Your task to perform on an android device: Open Chrome and go to the settings page Image 0: 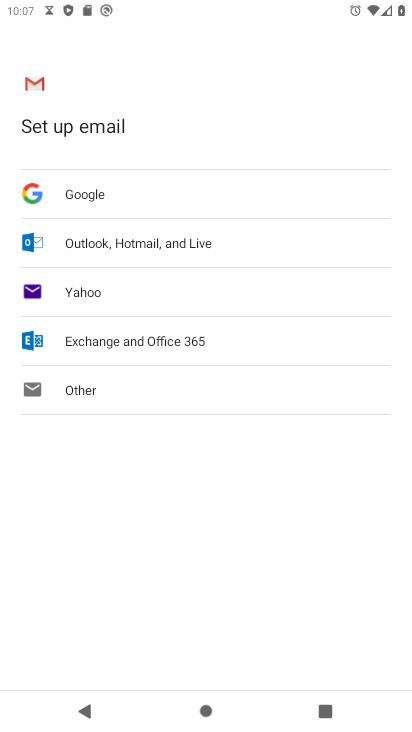
Step 0: press back button
Your task to perform on an android device: Open Chrome and go to the settings page Image 1: 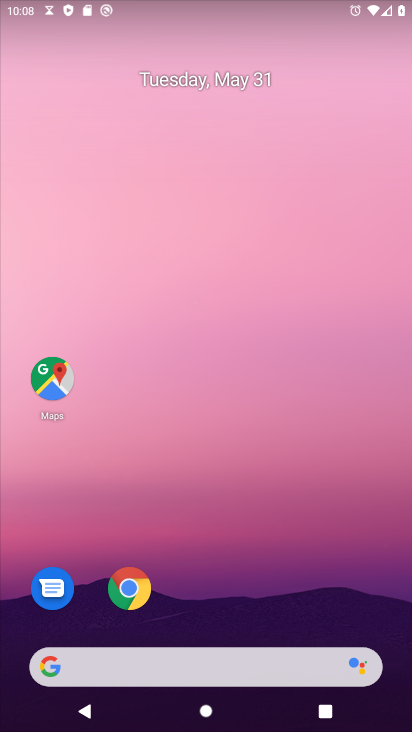
Step 1: click (129, 587)
Your task to perform on an android device: Open Chrome and go to the settings page Image 2: 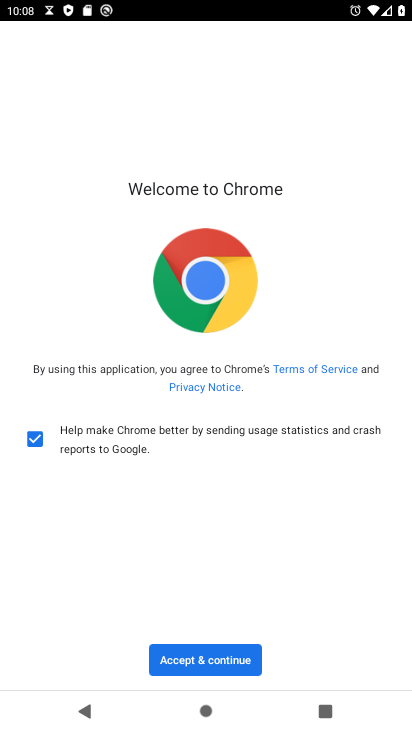
Step 2: click (203, 657)
Your task to perform on an android device: Open Chrome and go to the settings page Image 3: 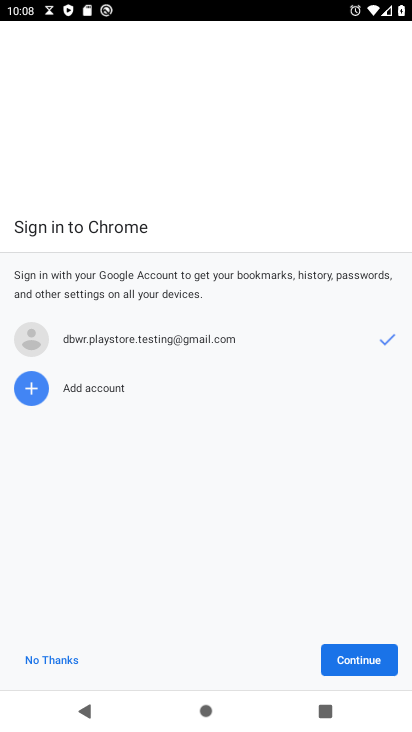
Step 3: click (366, 658)
Your task to perform on an android device: Open Chrome and go to the settings page Image 4: 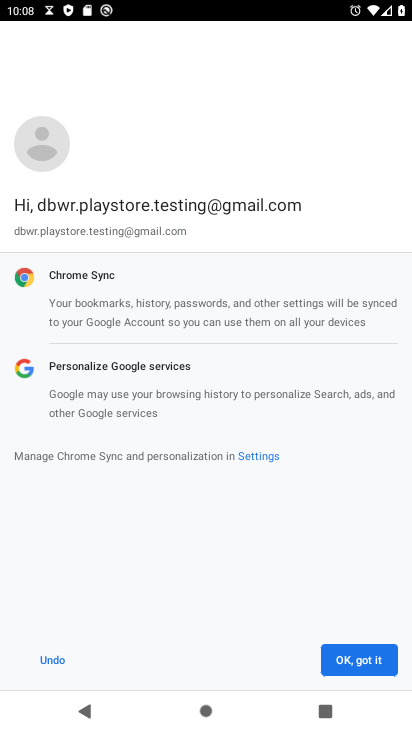
Step 4: click (366, 658)
Your task to perform on an android device: Open Chrome and go to the settings page Image 5: 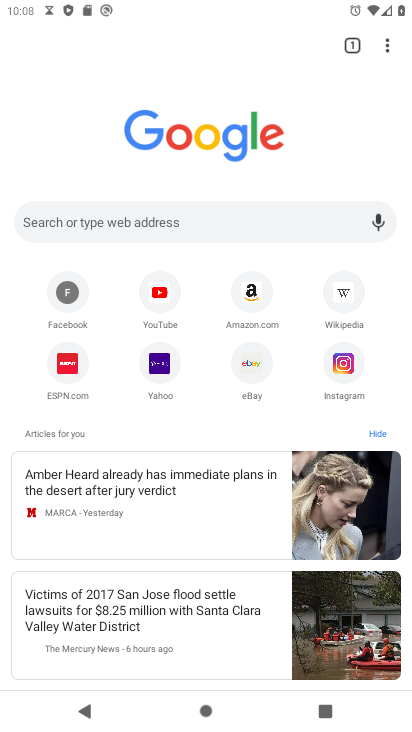
Step 5: click (386, 46)
Your task to perform on an android device: Open Chrome and go to the settings page Image 6: 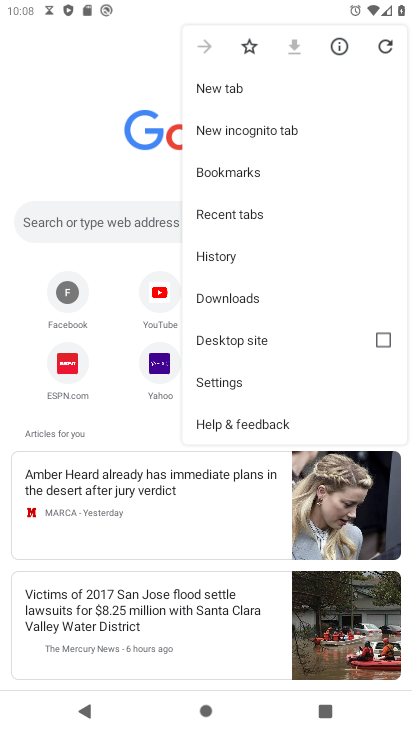
Step 6: click (232, 376)
Your task to perform on an android device: Open Chrome and go to the settings page Image 7: 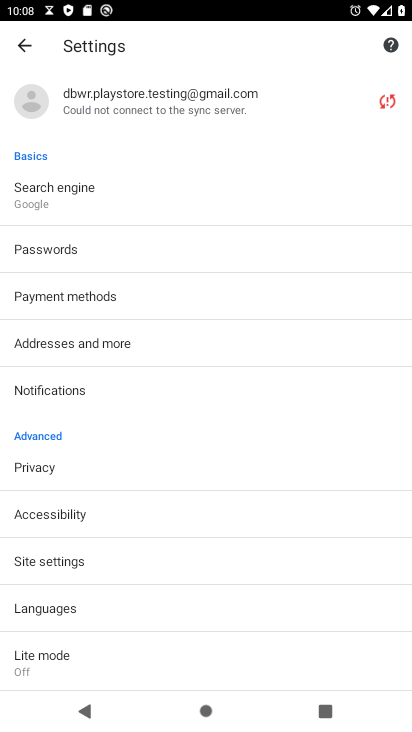
Step 7: task complete